Your task to perform on an android device: toggle translation in the chrome app Image 0: 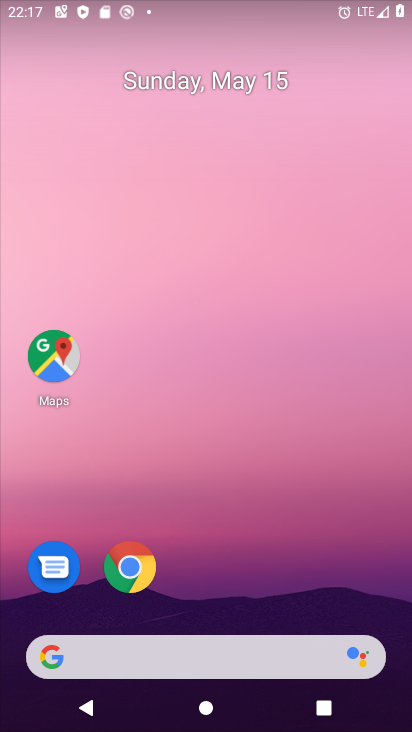
Step 0: click (127, 555)
Your task to perform on an android device: toggle translation in the chrome app Image 1: 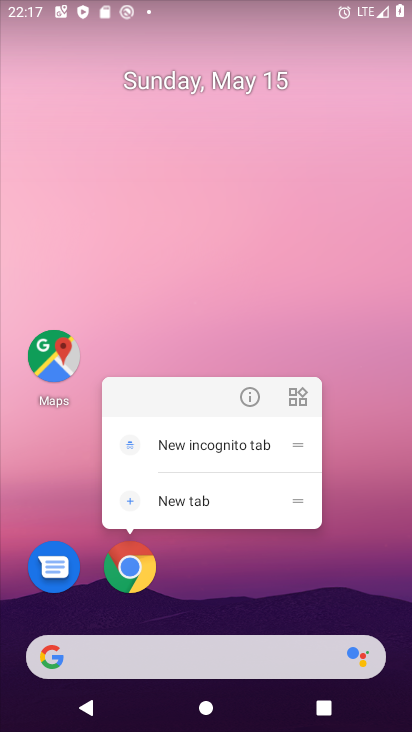
Step 1: click (136, 573)
Your task to perform on an android device: toggle translation in the chrome app Image 2: 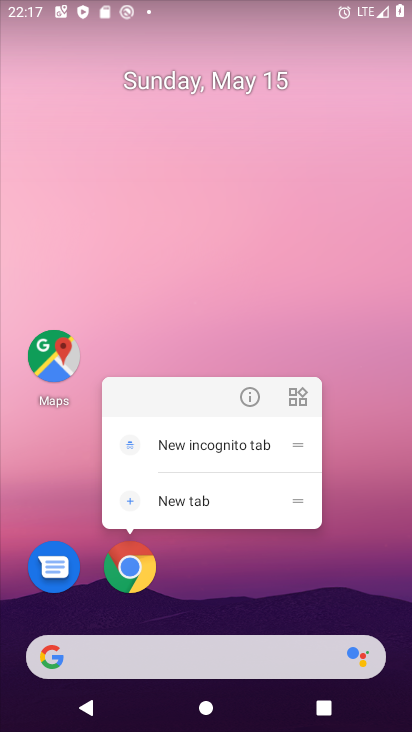
Step 2: click (136, 573)
Your task to perform on an android device: toggle translation in the chrome app Image 3: 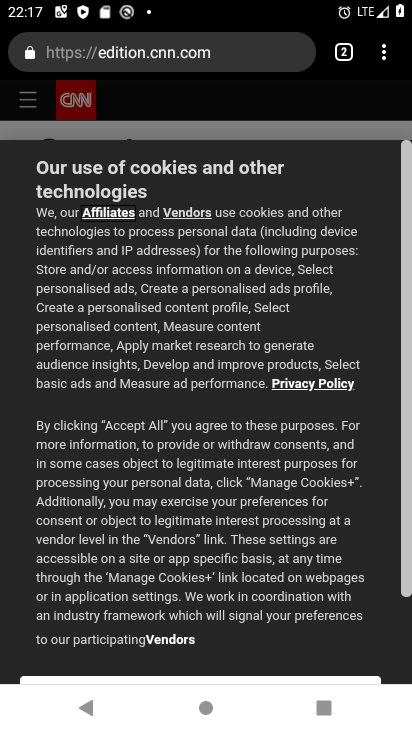
Step 3: click (394, 46)
Your task to perform on an android device: toggle translation in the chrome app Image 4: 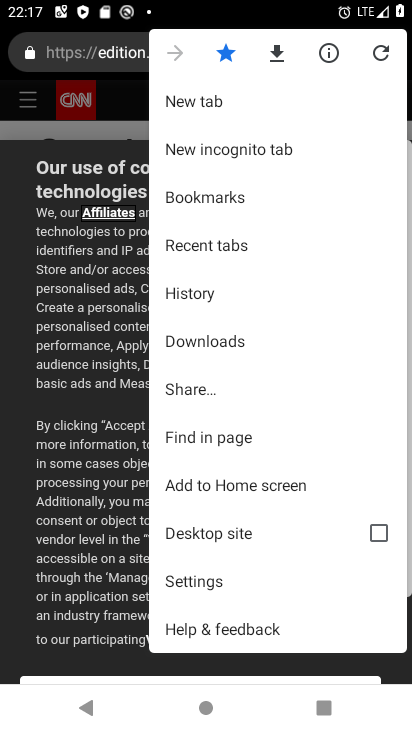
Step 4: click (246, 583)
Your task to perform on an android device: toggle translation in the chrome app Image 5: 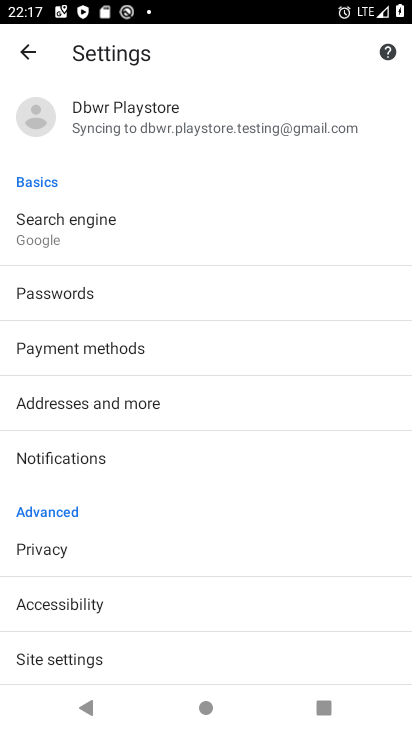
Step 5: drag from (206, 613) to (243, 275)
Your task to perform on an android device: toggle translation in the chrome app Image 6: 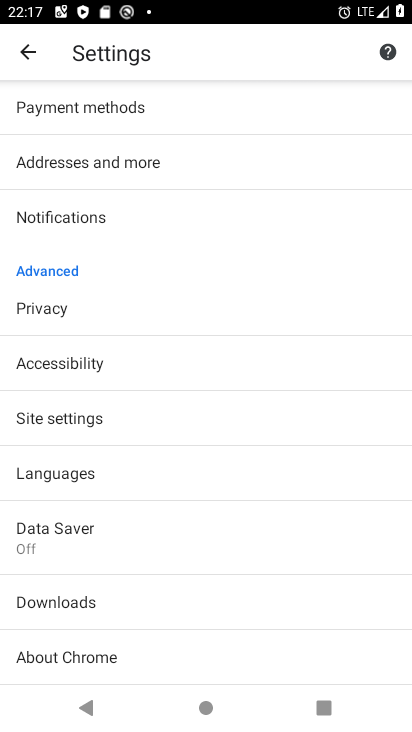
Step 6: click (84, 476)
Your task to perform on an android device: toggle translation in the chrome app Image 7: 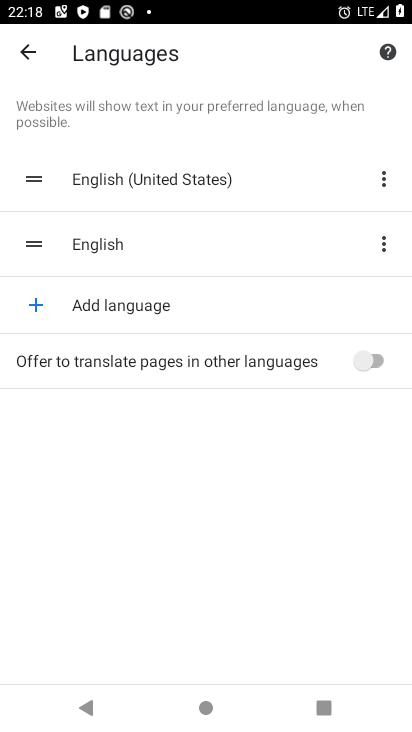
Step 7: click (378, 357)
Your task to perform on an android device: toggle translation in the chrome app Image 8: 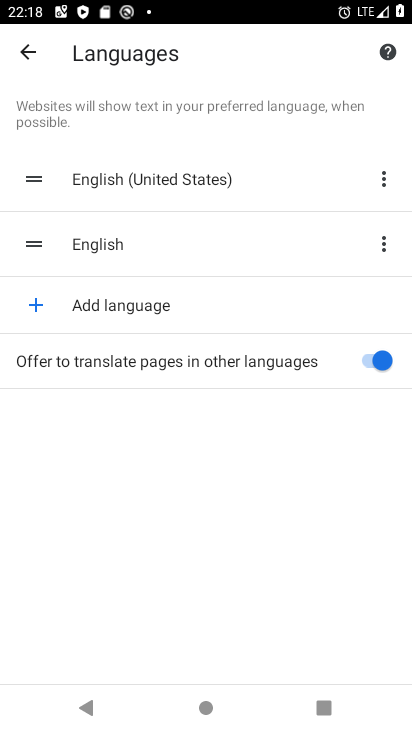
Step 8: task complete